Your task to perform on an android device: turn off location history Image 0: 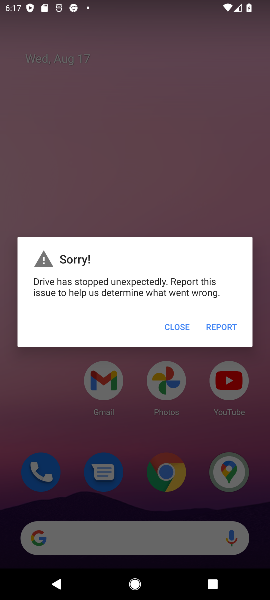
Step 0: click (183, 323)
Your task to perform on an android device: turn off location history Image 1: 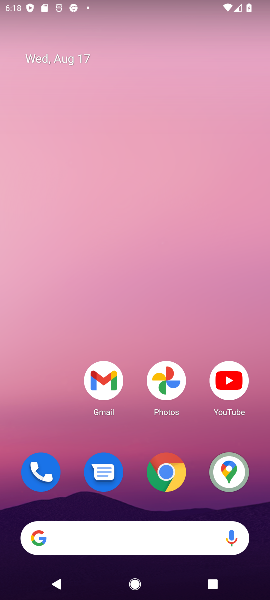
Step 1: drag from (136, 435) to (141, 79)
Your task to perform on an android device: turn off location history Image 2: 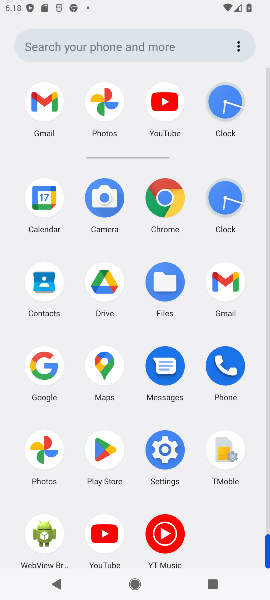
Step 2: click (161, 462)
Your task to perform on an android device: turn off location history Image 3: 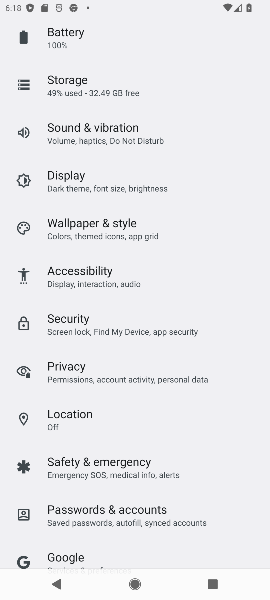
Step 3: click (106, 419)
Your task to perform on an android device: turn off location history Image 4: 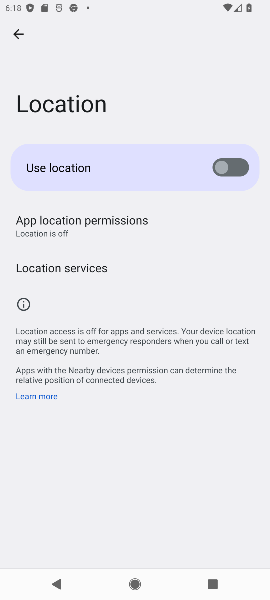
Step 4: click (67, 270)
Your task to perform on an android device: turn off location history Image 5: 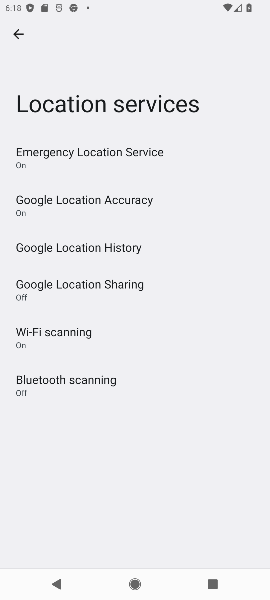
Step 5: click (108, 248)
Your task to perform on an android device: turn off location history Image 6: 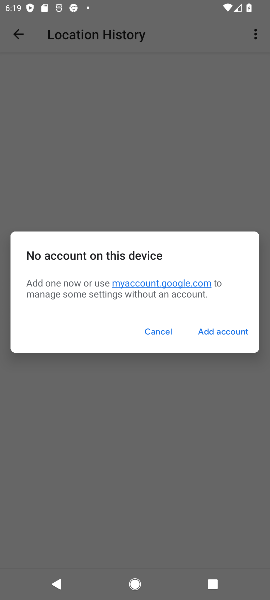
Step 6: click (156, 334)
Your task to perform on an android device: turn off location history Image 7: 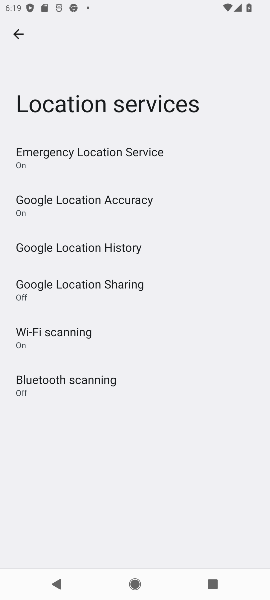
Step 7: task complete